Your task to perform on an android device: See recent photos Image 0: 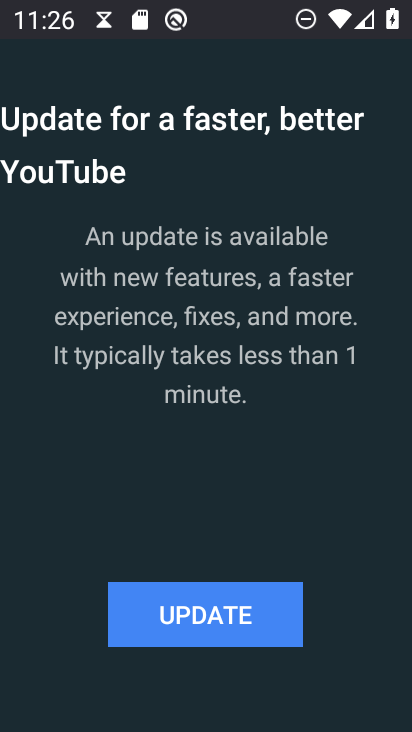
Step 0: press home button
Your task to perform on an android device: See recent photos Image 1: 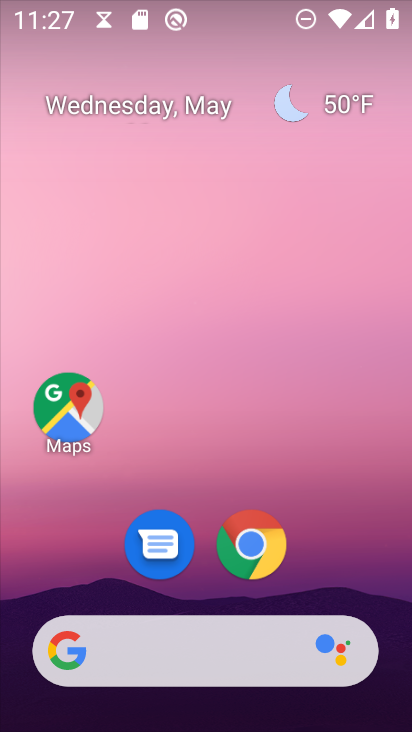
Step 1: drag from (208, 595) to (271, 178)
Your task to perform on an android device: See recent photos Image 2: 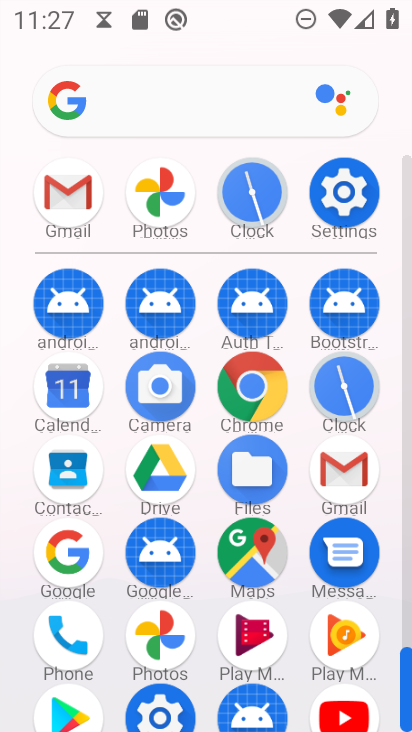
Step 2: click (164, 199)
Your task to perform on an android device: See recent photos Image 3: 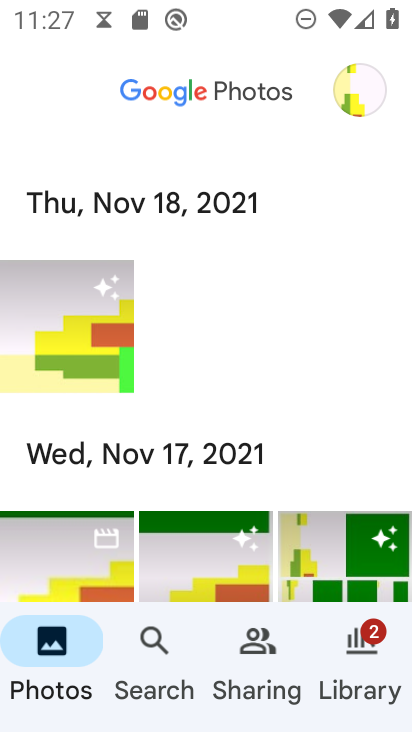
Step 3: task complete